Your task to perform on an android device: Open Yahoo.com Image 0: 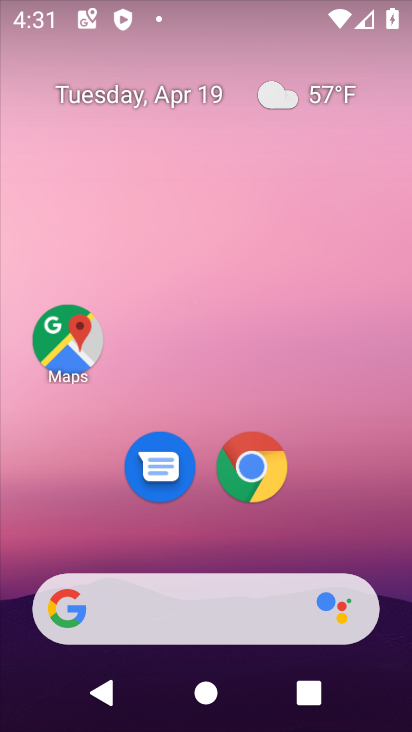
Step 0: drag from (257, 493) to (152, 37)
Your task to perform on an android device: Open Yahoo.com Image 1: 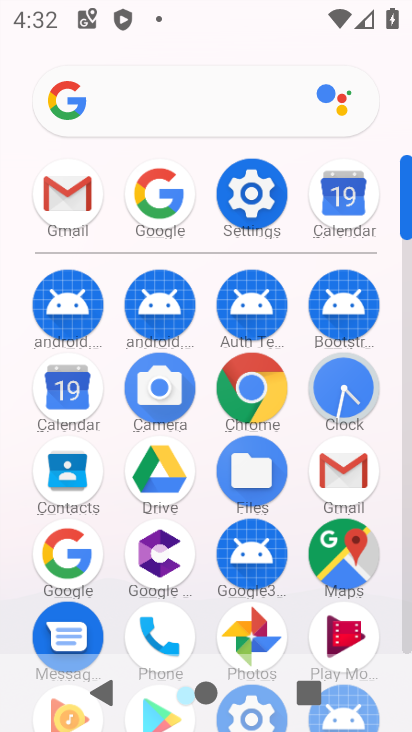
Step 1: click (250, 384)
Your task to perform on an android device: Open Yahoo.com Image 2: 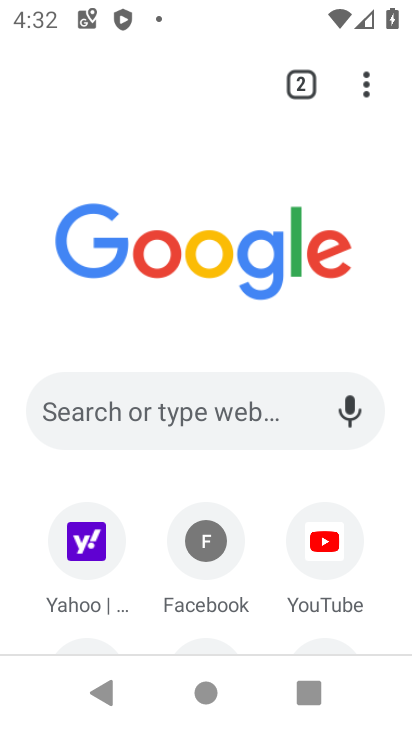
Step 2: drag from (275, 526) to (300, 3)
Your task to perform on an android device: Open Yahoo.com Image 3: 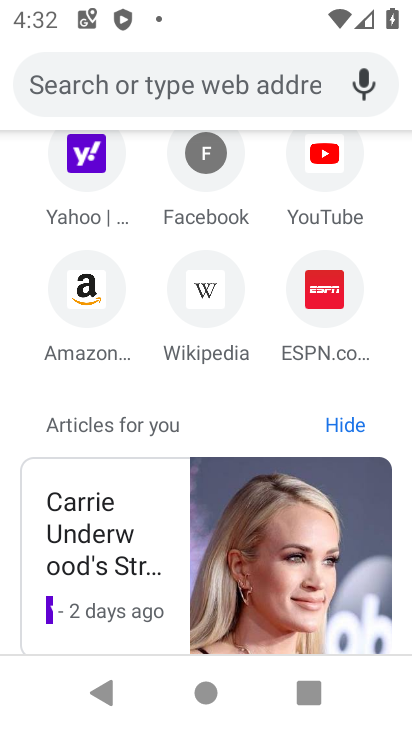
Step 3: click (114, 188)
Your task to perform on an android device: Open Yahoo.com Image 4: 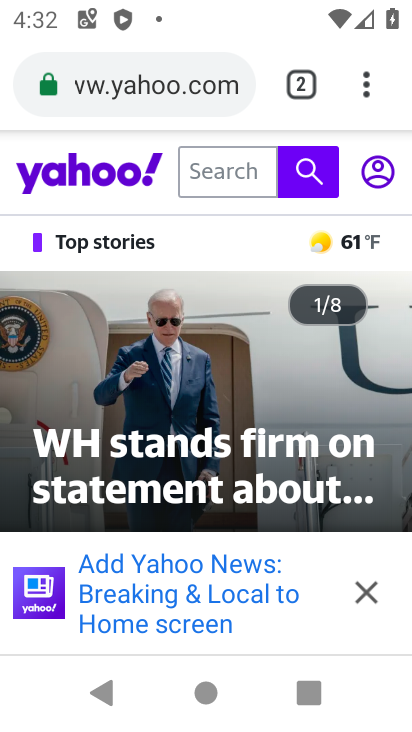
Step 4: task complete